Your task to perform on an android device: check data usage Image 0: 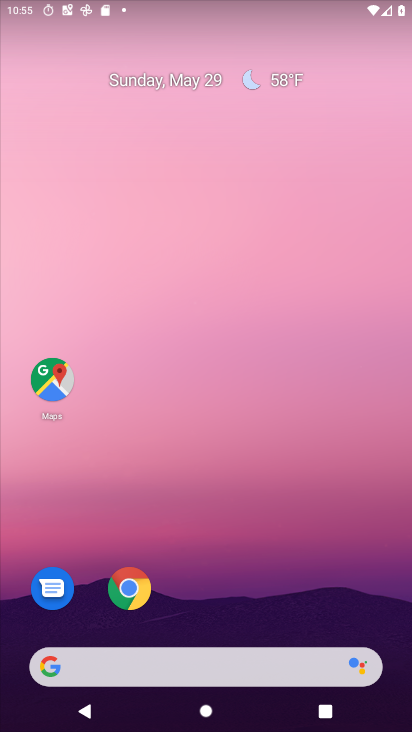
Step 0: drag from (255, 632) to (326, 127)
Your task to perform on an android device: check data usage Image 1: 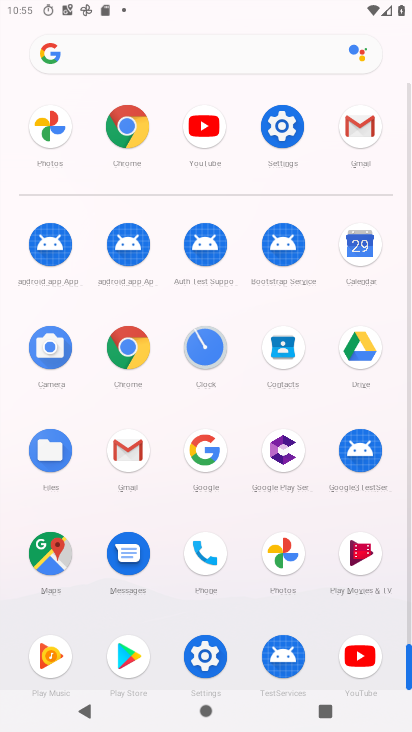
Step 1: click (279, 111)
Your task to perform on an android device: check data usage Image 2: 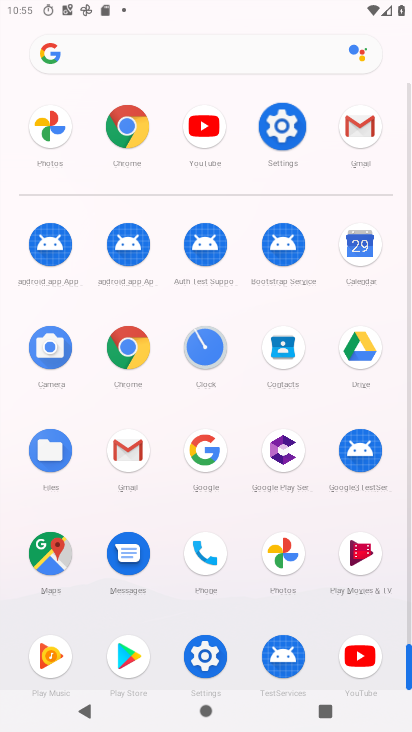
Step 2: click (280, 116)
Your task to perform on an android device: check data usage Image 3: 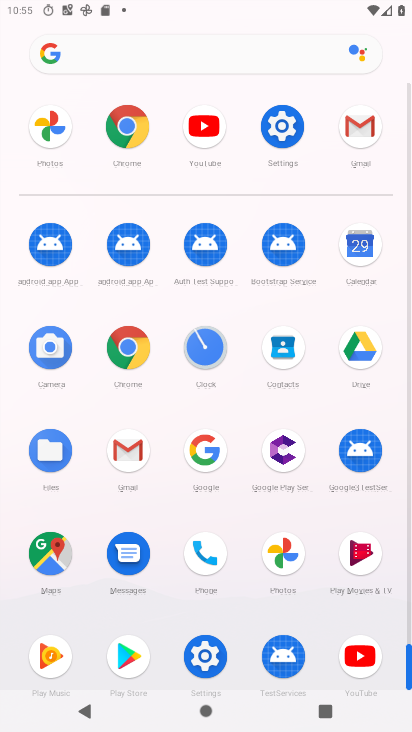
Step 3: click (277, 119)
Your task to perform on an android device: check data usage Image 4: 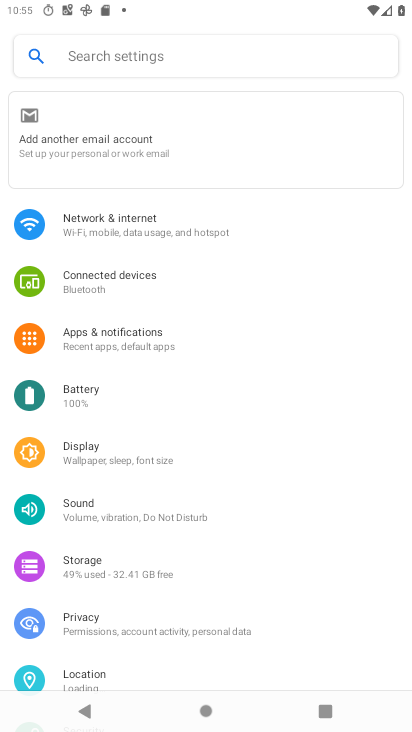
Step 4: click (116, 124)
Your task to perform on an android device: check data usage Image 5: 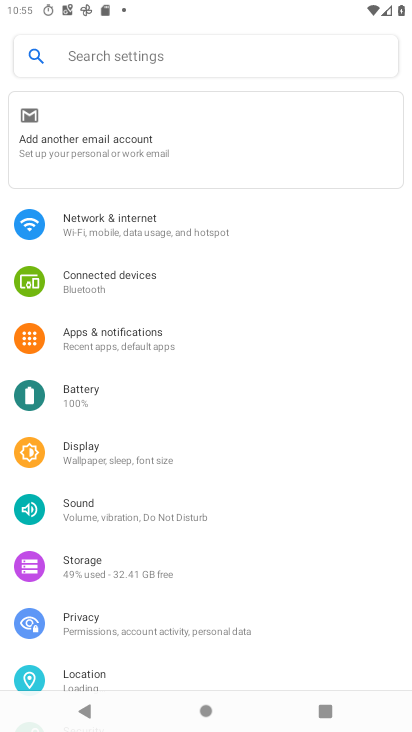
Step 5: click (117, 124)
Your task to perform on an android device: check data usage Image 6: 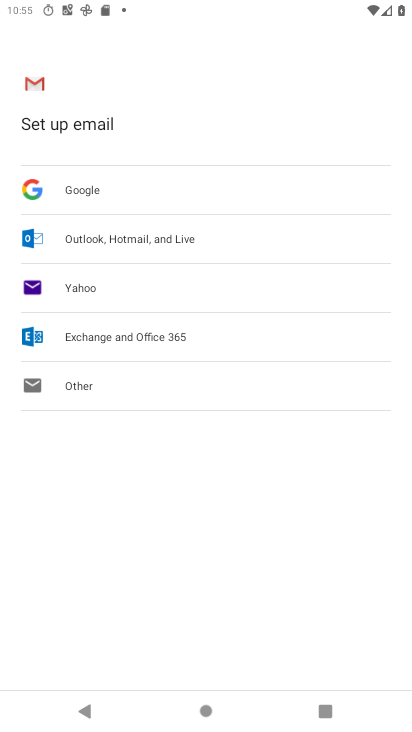
Step 6: press back button
Your task to perform on an android device: check data usage Image 7: 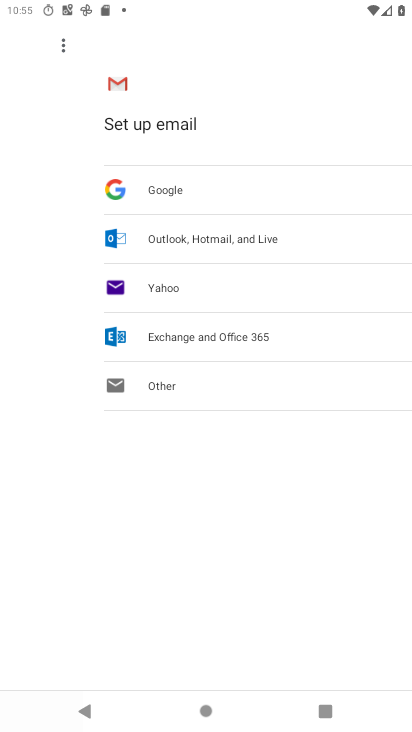
Step 7: press back button
Your task to perform on an android device: check data usage Image 8: 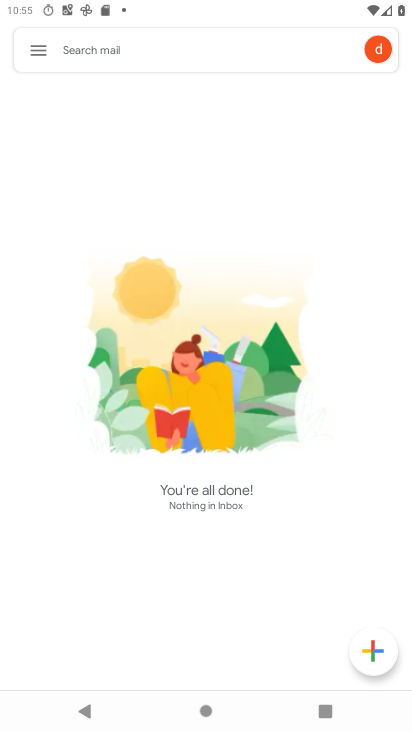
Step 8: press home button
Your task to perform on an android device: check data usage Image 9: 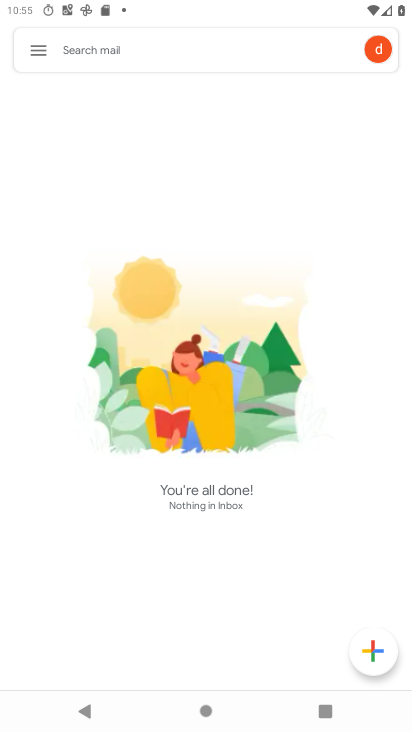
Step 9: press home button
Your task to perform on an android device: check data usage Image 10: 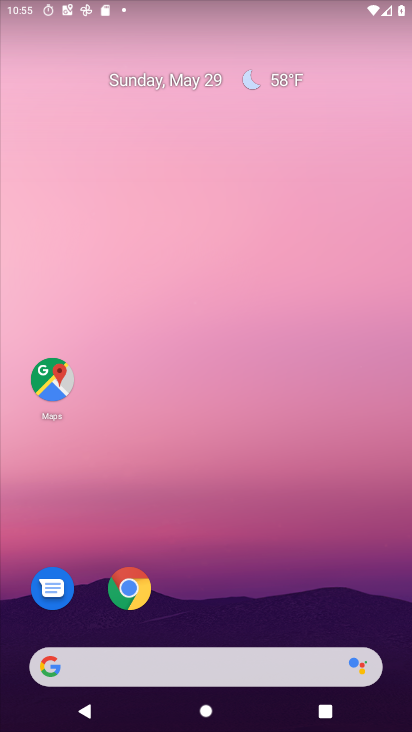
Step 10: click (31, 58)
Your task to perform on an android device: check data usage Image 11: 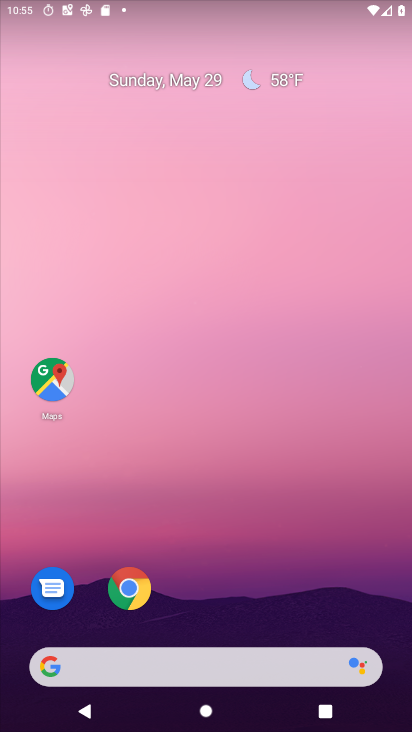
Step 11: drag from (194, 467) to (163, 177)
Your task to perform on an android device: check data usage Image 12: 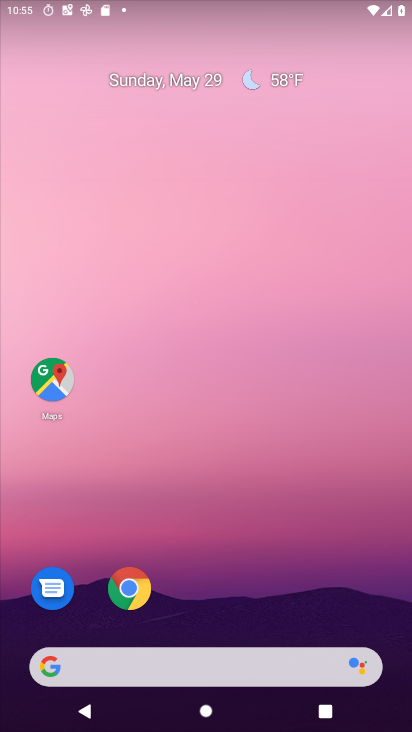
Step 12: drag from (228, 554) to (201, 294)
Your task to perform on an android device: check data usage Image 13: 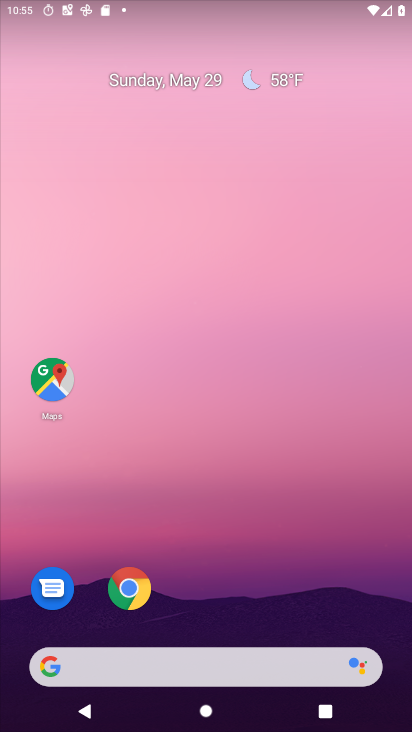
Step 13: drag from (228, 688) to (126, 265)
Your task to perform on an android device: check data usage Image 14: 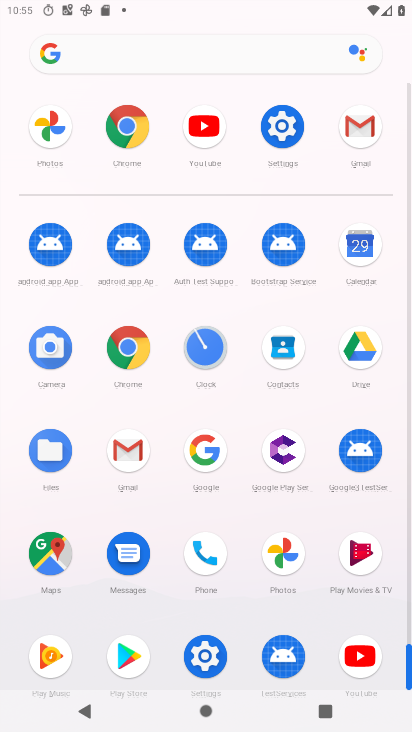
Step 14: drag from (227, 604) to (92, 179)
Your task to perform on an android device: check data usage Image 15: 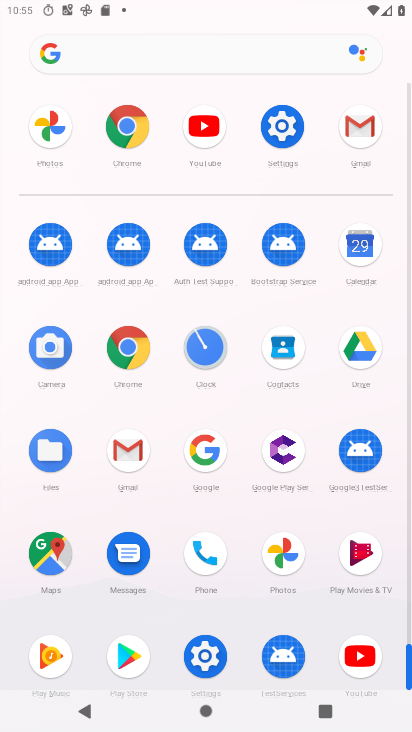
Step 15: drag from (243, 517) to (155, 130)
Your task to perform on an android device: check data usage Image 16: 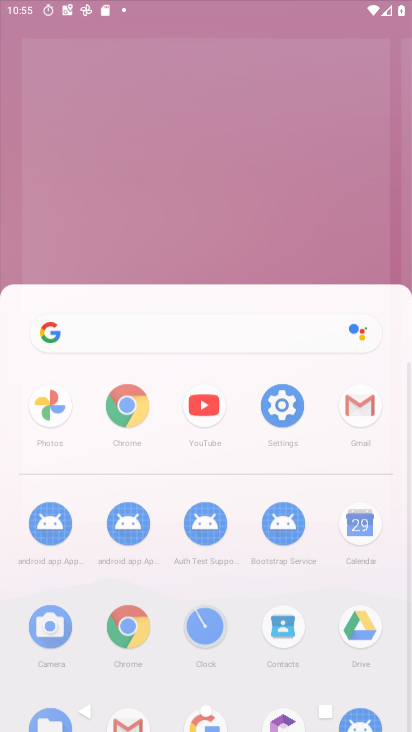
Step 16: drag from (201, 4) to (190, 150)
Your task to perform on an android device: check data usage Image 17: 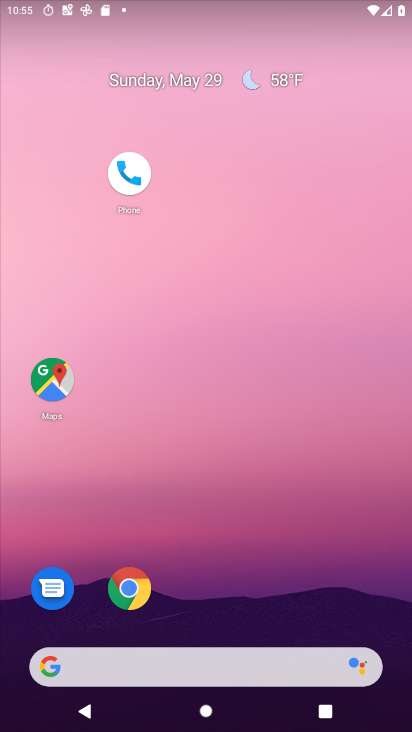
Step 17: click (278, 120)
Your task to perform on an android device: check data usage Image 18: 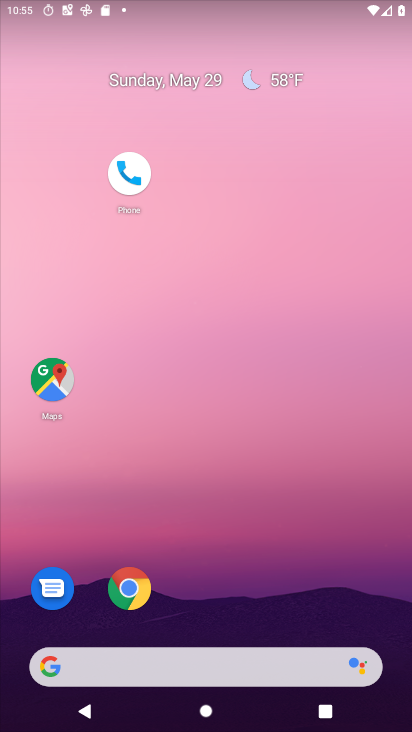
Step 18: drag from (243, 610) to (159, 3)
Your task to perform on an android device: check data usage Image 19: 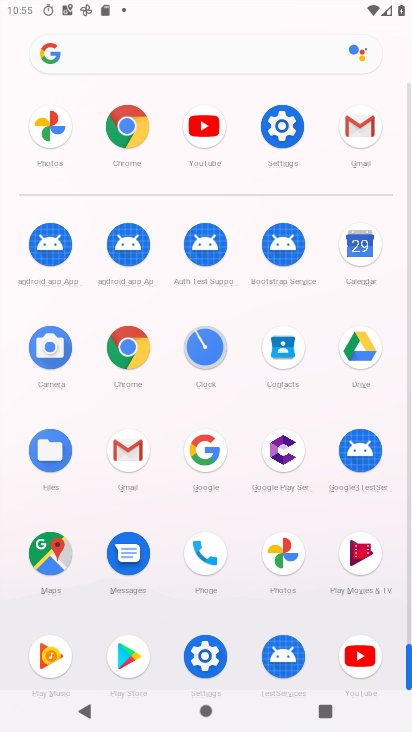
Step 19: click (203, 652)
Your task to perform on an android device: check data usage Image 20: 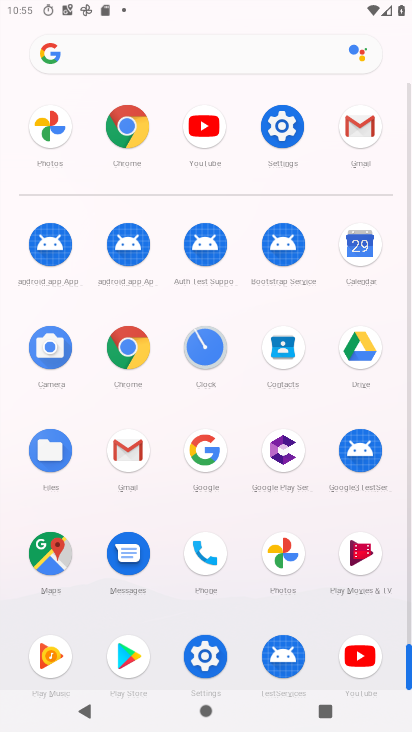
Step 20: click (192, 651)
Your task to perform on an android device: check data usage Image 21: 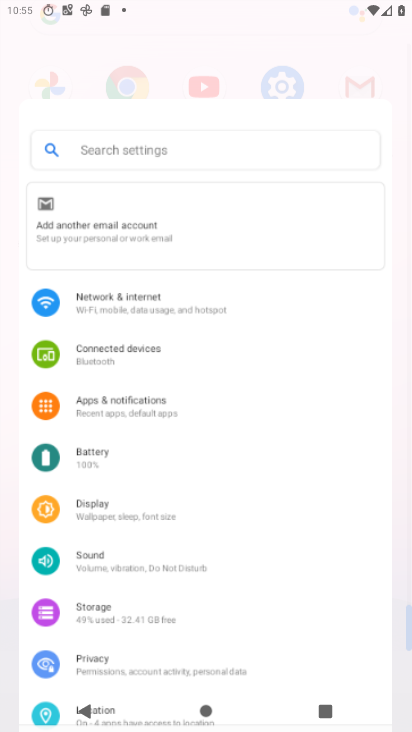
Step 21: click (188, 642)
Your task to perform on an android device: check data usage Image 22: 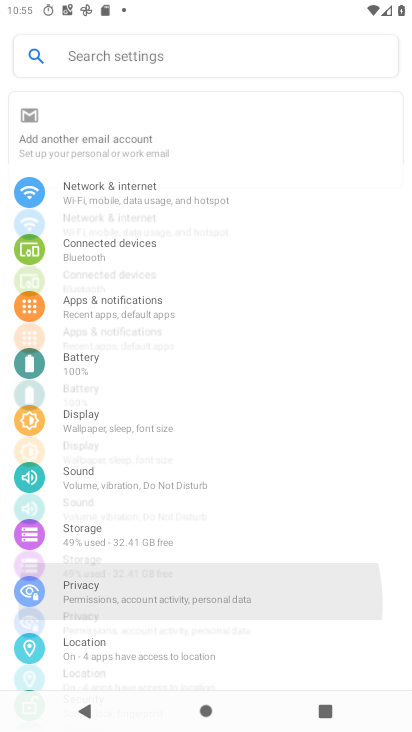
Step 22: click (212, 649)
Your task to perform on an android device: check data usage Image 23: 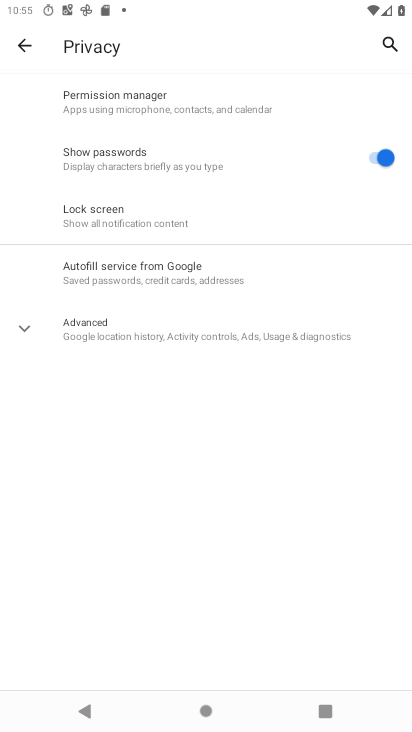
Step 23: click (29, 42)
Your task to perform on an android device: check data usage Image 24: 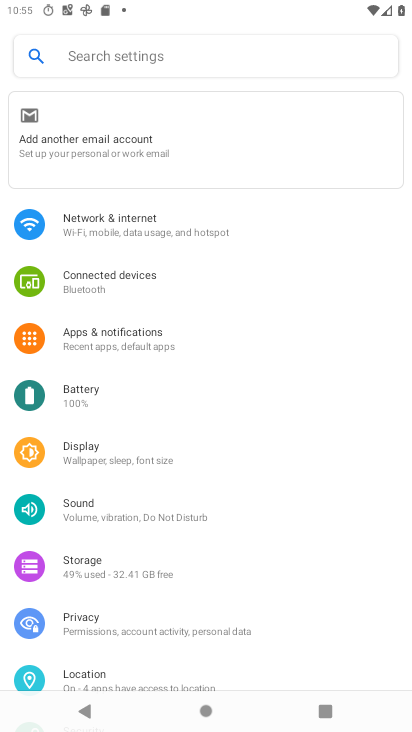
Step 24: click (88, 223)
Your task to perform on an android device: check data usage Image 25: 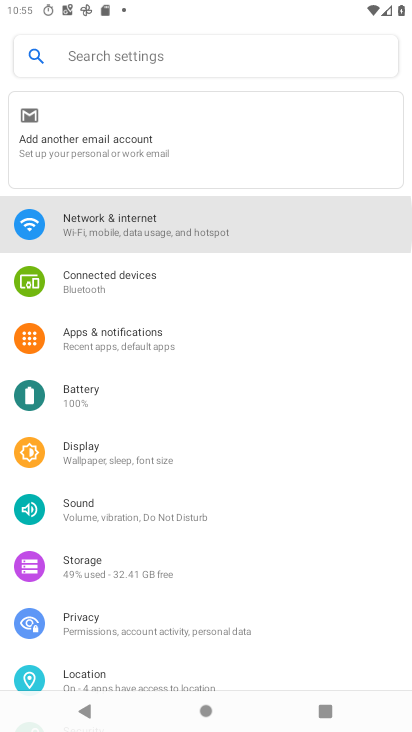
Step 25: click (88, 223)
Your task to perform on an android device: check data usage Image 26: 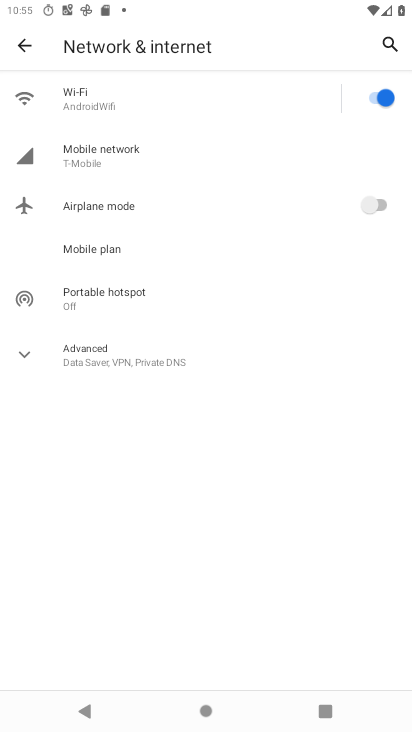
Step 26: task complete